Your task to perform on an android device: Go to Google Image 0: 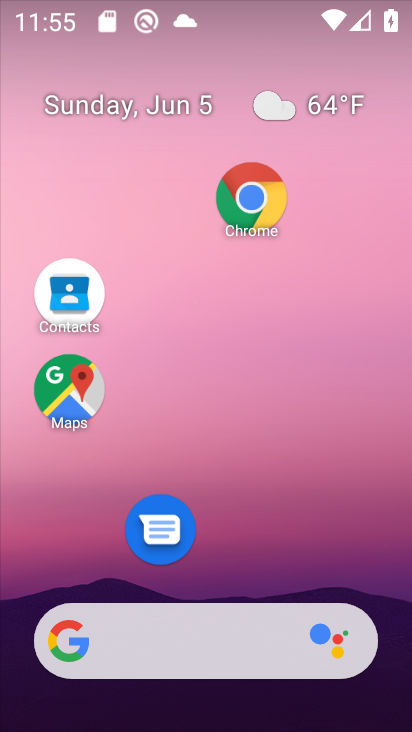
Step 0: drag from (247, 551) to (220, 37)
Your task to perform on an android device: Go to Google Image 1: 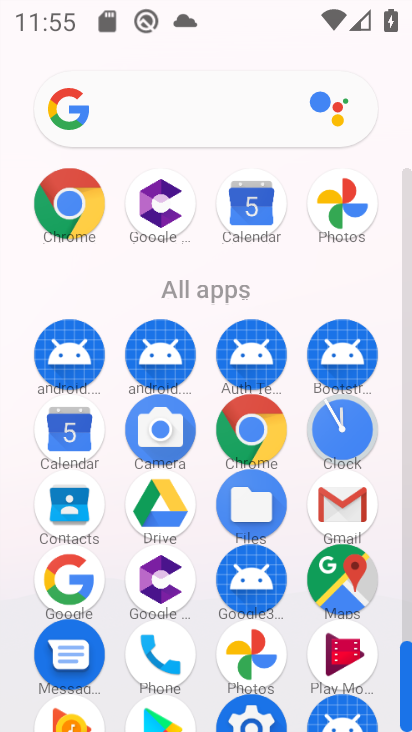
Step 1: click (71, 577)
Your task to perform on an android device: Go to Google Image 2: 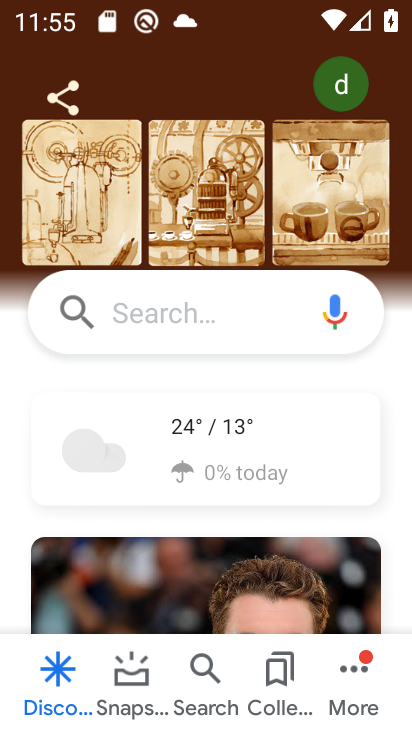
Step 2: task complete